Your task to perform on an android device: Search for Mexican restaurants on Maps Image 0: 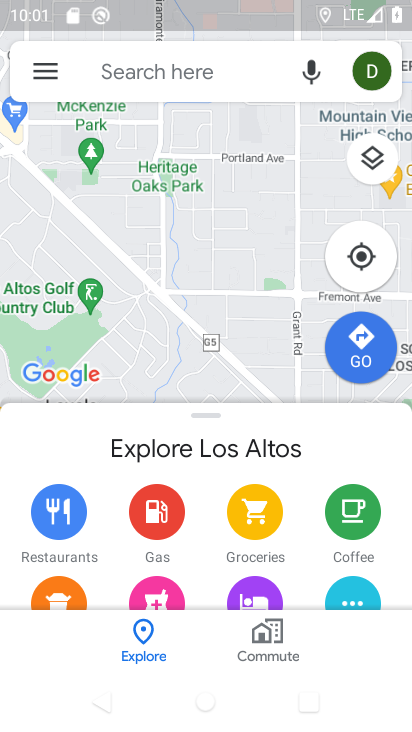
Step 0: click (220, 76)
Your task to perform on an android device: Search for Mexican restaurants on Maps Image 1: 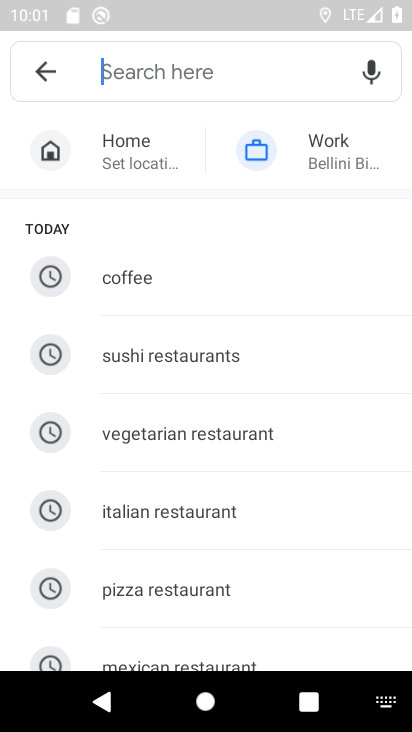
Step 1: drag from (252, 549) to (252, 379)
Your task to perform on an android device: Search for Mexican restaurants on Maps Image 2: 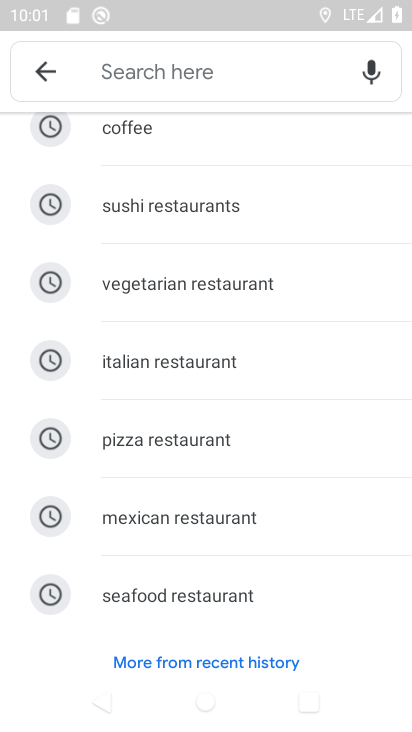
Step 2: click (226, 502)
Your task to perform on an android device: Search for Mexican restaurants on Maps Image 3: 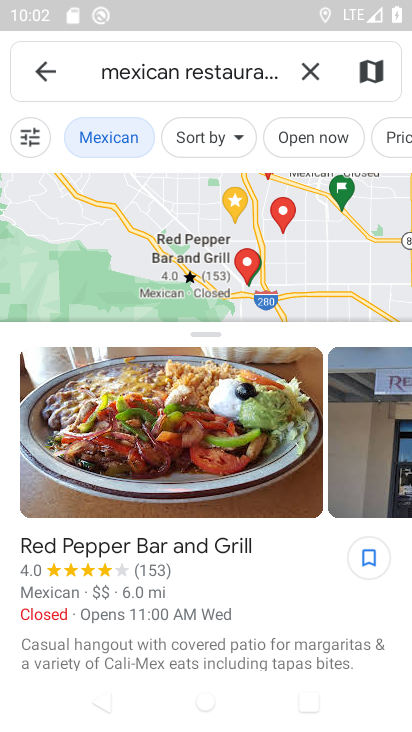
Step 3: task complete